Your task to perform on an android device: Open calendar and show me the fourth week of next month Image 0: 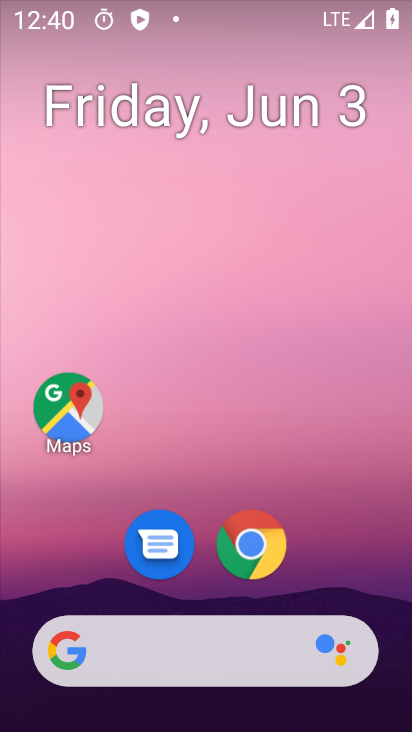
Step 0: drag from (321, 566) to (276, 4)
Your task to perform on an android device: Open calendar and show me the fourth week of next month Image 1: 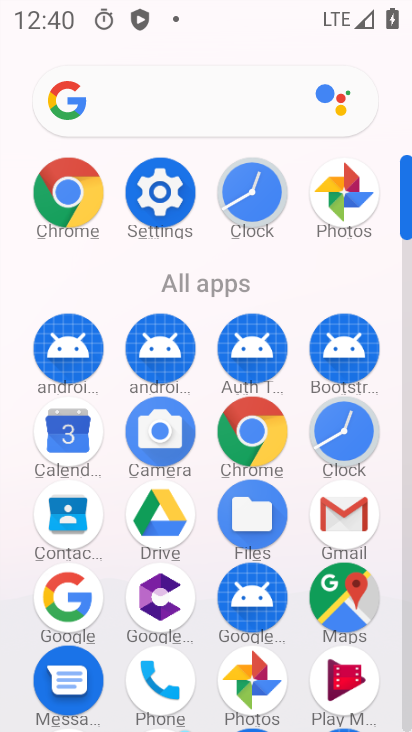
Step 1: click (62, 446)
Your task to perform on an android device: Open calendar and show me the fourth week of next month Image 2: 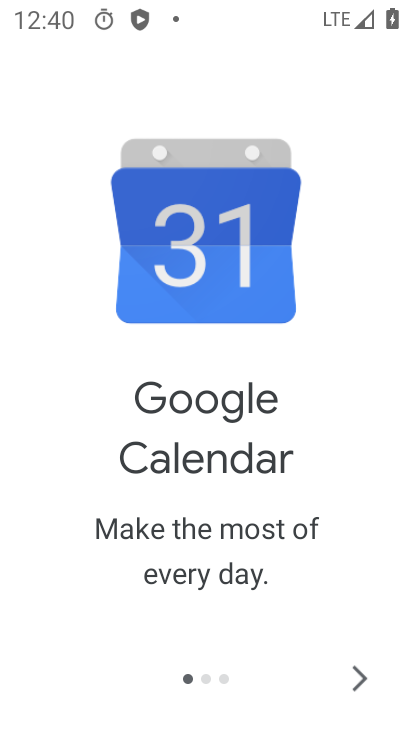
Step 2: click (354, 677)
Your task to perform on an android device: Open calendar and show me the fourth week of next month Image 3: 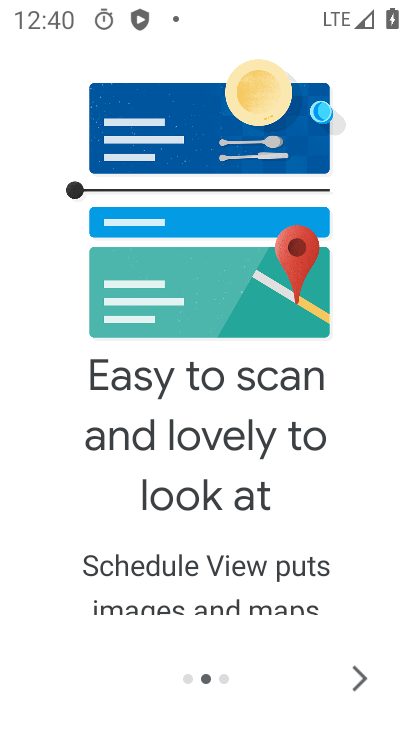
Step 3: click (354, 677)
Your task to perform on an android device: Open calendar and show me the fourth week of next month Image 4: 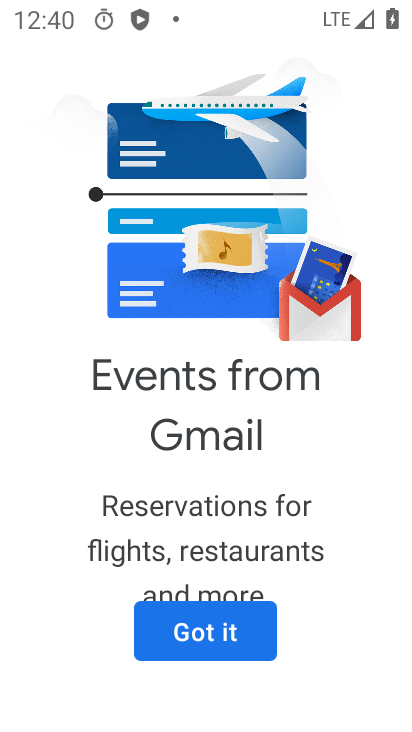
Step 4: click (226, 635)
Your task to perform on an android device: Open calendar and show me the fourth week of next month Image 5: 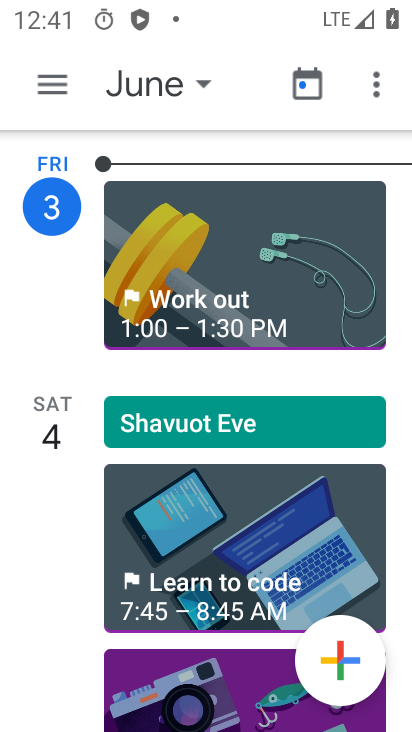
Step 5: click (170, 99)
Your task to perform on an android device: Open calendar and show me the fourth week of next month Image 6: 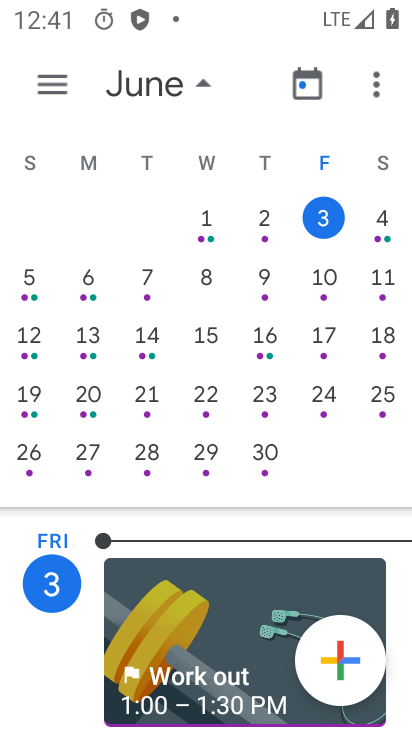
Step 6: drag from (322, 310) to (26, 332)
Your task to perform on an android device: Open calendar and show me the fourth week of next month Image 7: 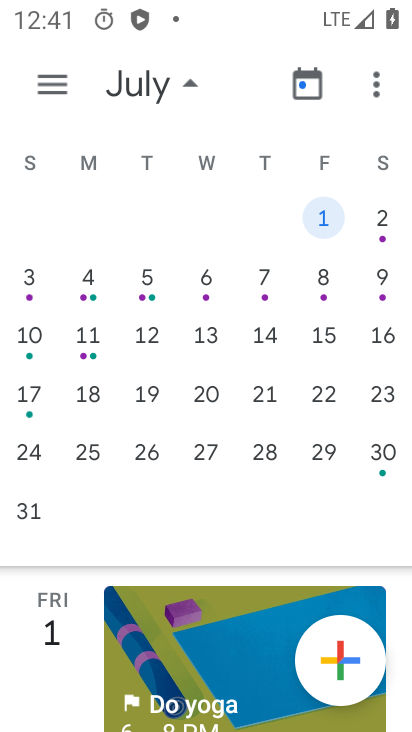
Step 7: click (38, 400)
Your task to perform on an android device: Open calendar and show me the fourth week of next month Image 8: 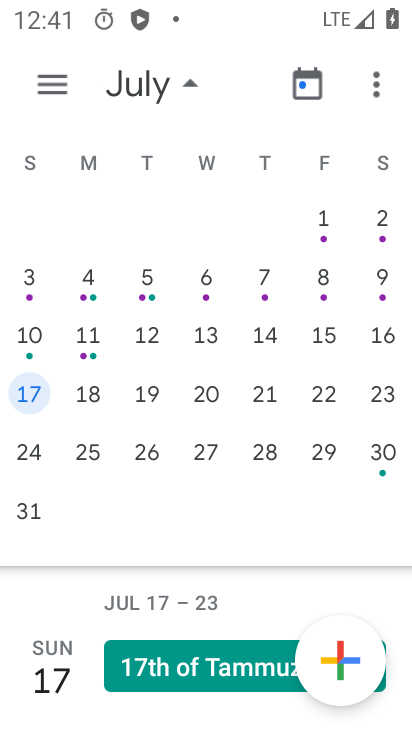
Step 8: task complete